Your task to perform on an android device: delete the emails in spam in the gmail app Image 0: 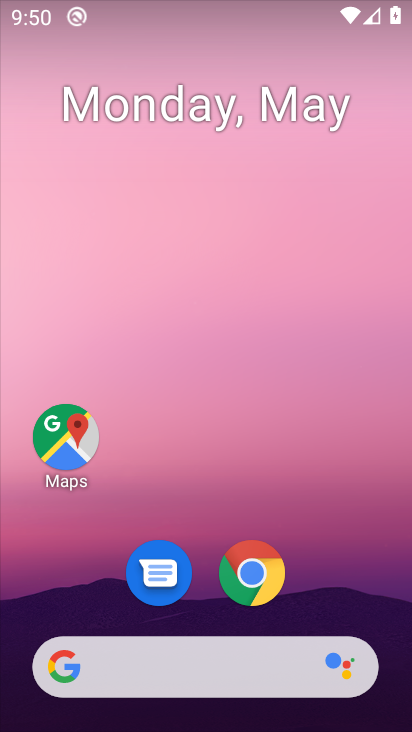
Step 0: drag from (197, 341) to (242, 179)
Your task to perform on an android device: delete the emails in spam in the gmail app Image 1: 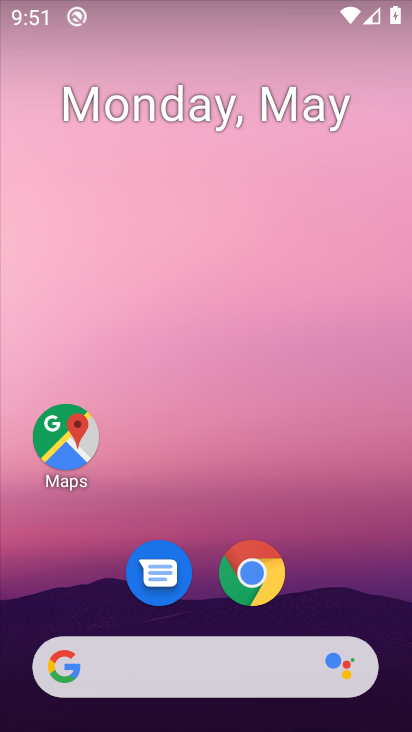
Step 1: drag from (258, 338) to (299, 16)
Your task to perform on an android device: delete the emails in spam in the gmail app Image 2: 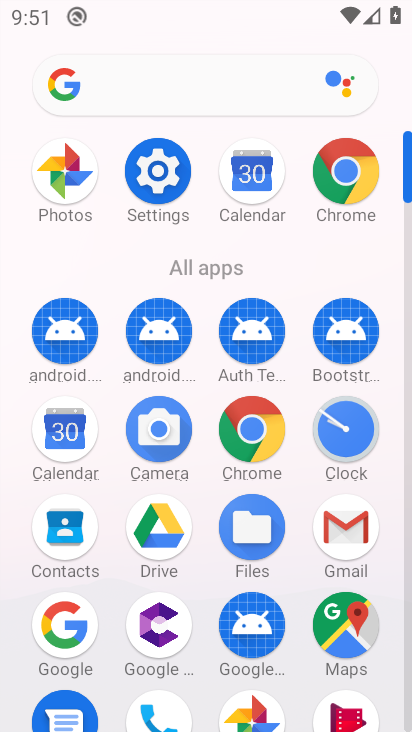
Step 2: click (348, 528)
Your task to perform on an android device: delete the emails in spam in the gmail app Image 3: 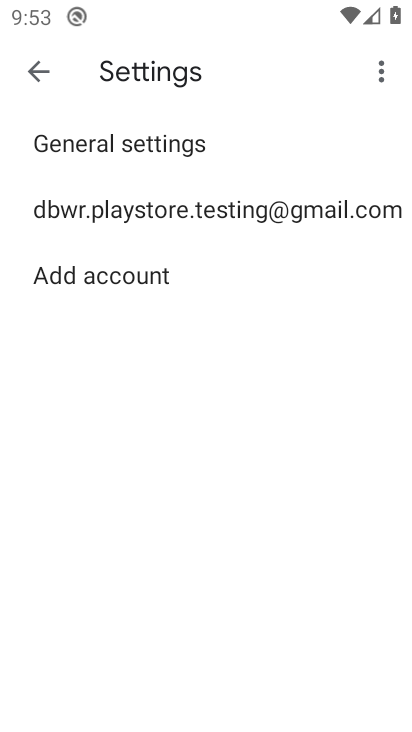
Step 3: click (32, 59)
Your task to perform on an android device: delete the emails in spam in the gmail app Image 4: 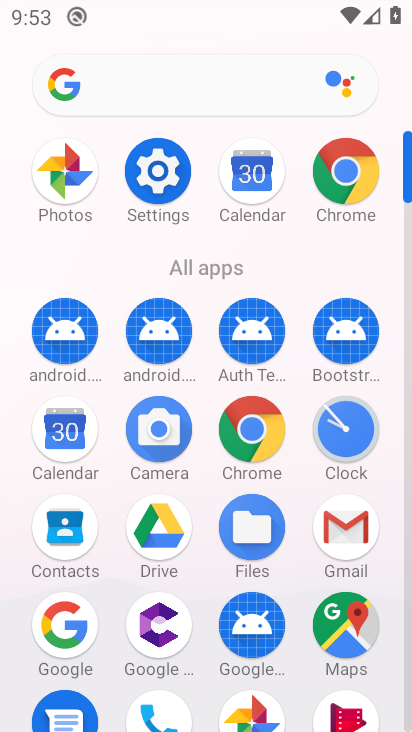
Step 4: click (347, 527)
Your task to perform on an android device: delete the emails in spam in the gmail app Image 5: 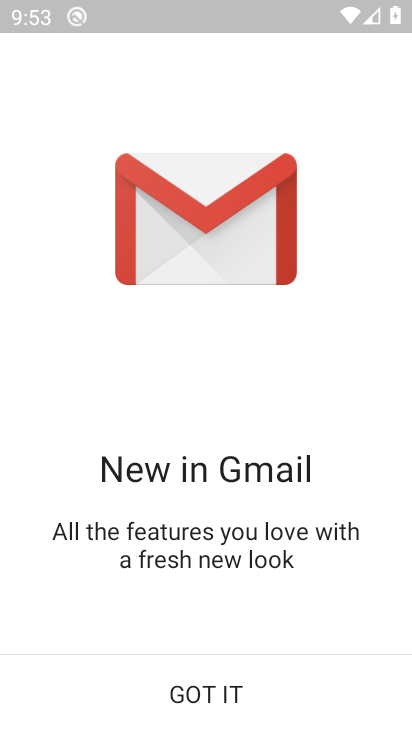
Step 5: click (191, 690)
Your task to perform on an android device: delete the emails in spam in the gmail app Image 6: 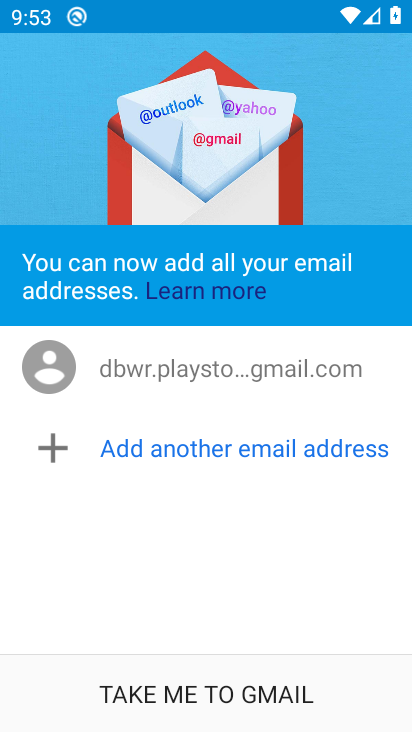
Step 6: click (182, 670)
Your task to perform on an android device: delete the emails in spam in the gmail app Image 7: 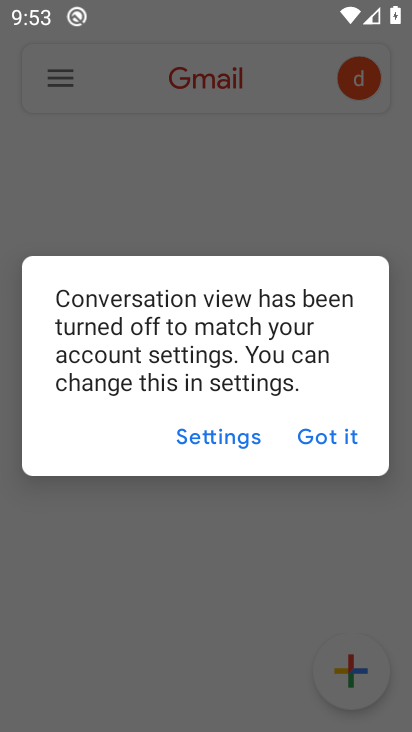
Step 7: click (327, 445)
Your task to perform on an android device: delete the emails in spam in the gmail app Image 8: 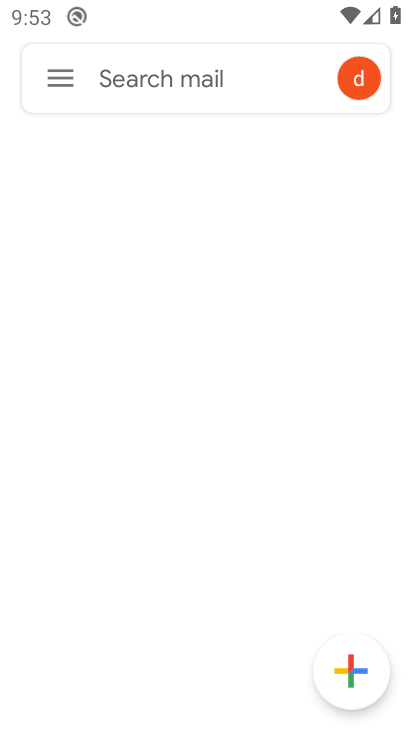
Step 8: click (65, 77)
Your task to perform on an android device: delete the emails in spam in the gmail app Image 9: 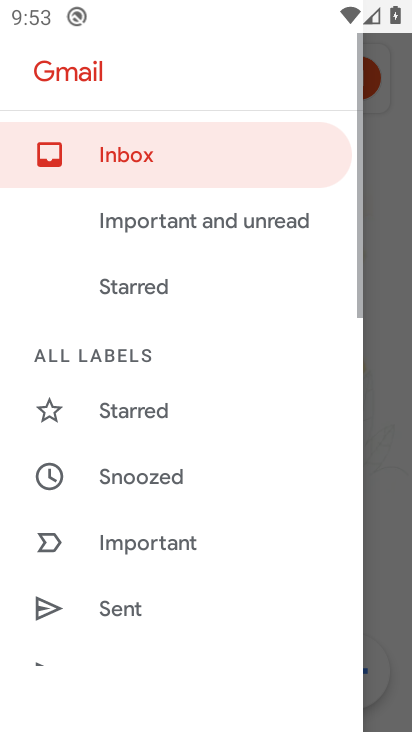
Step 9: drag from (138, 614) to (210, 122)
Your task to perform on an android device: delete the emails in spam in the gmail app Image 10: 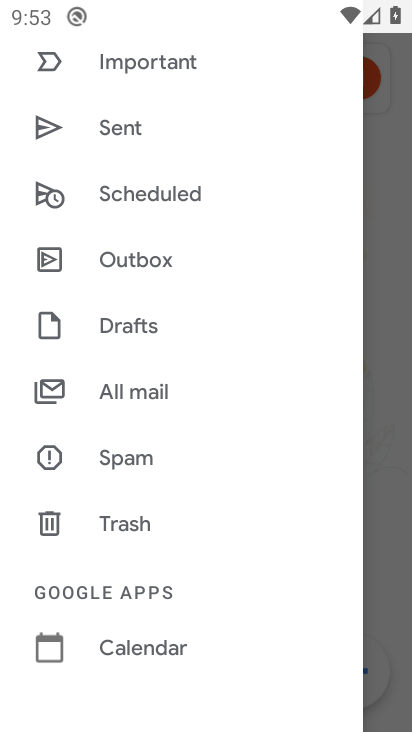
Step 10: click (129, 456)
Your task to perform on an android device: delete the emails in spam in the gmail app Image 11: 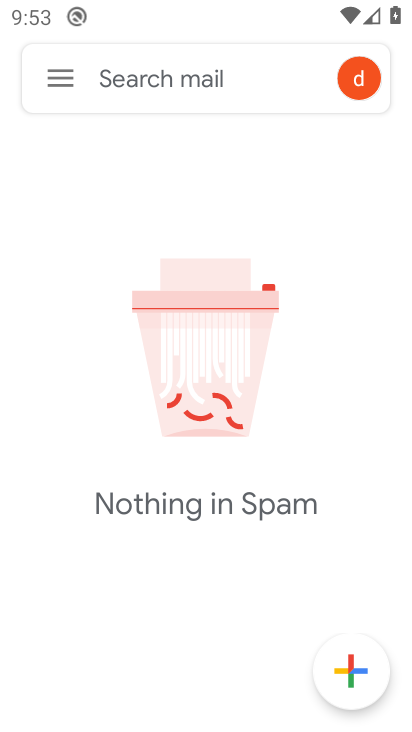
Step 11: task complete